Your task to perform on an android device: see tabs open on other devices in the chrome app Image 0: 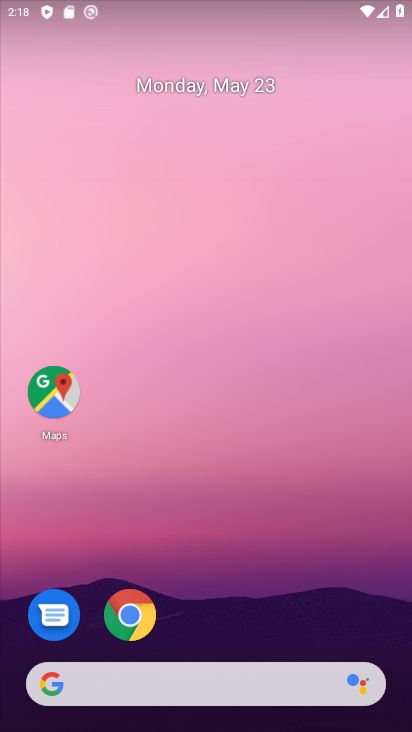
Step 0: click (133, 616)
Your task to perform on an android device: see tabs open on other devices in the chrome app Image 1: 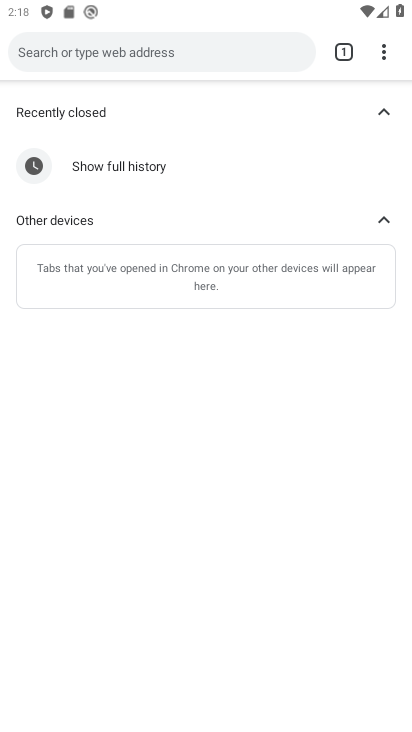
Step 1: task complete